Your task to perform on an android device: Open Yahoo.com Image 0: 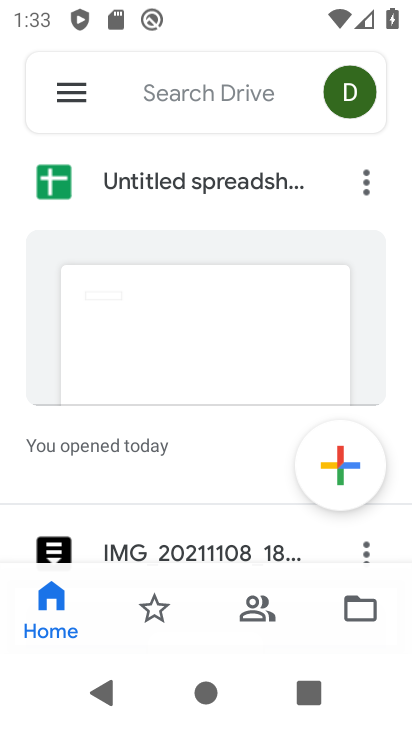
Step 0: press home button
Your task to perform on an android device: Open Yahoo.com Image 1: 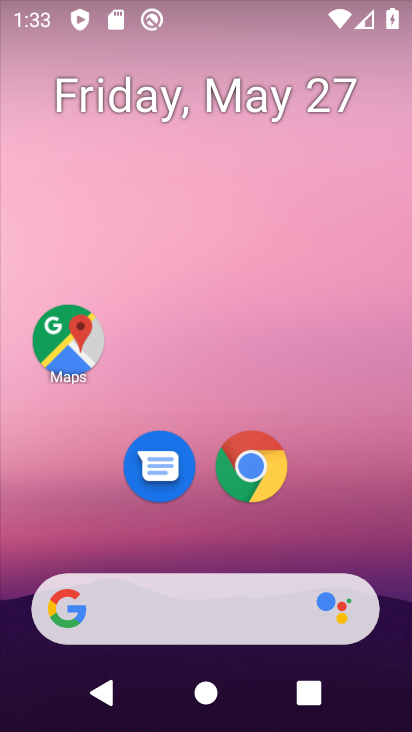
Step 1: click (233, 477)
Your task to perform on an android device: Open Yahoo.com Image 2: 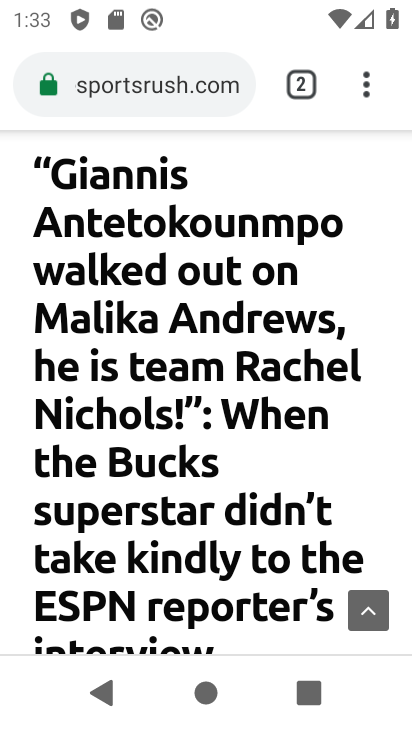
Step 2: click (302, 79)
Your task to perform on an android device: Open Yahoo.com Image 3: 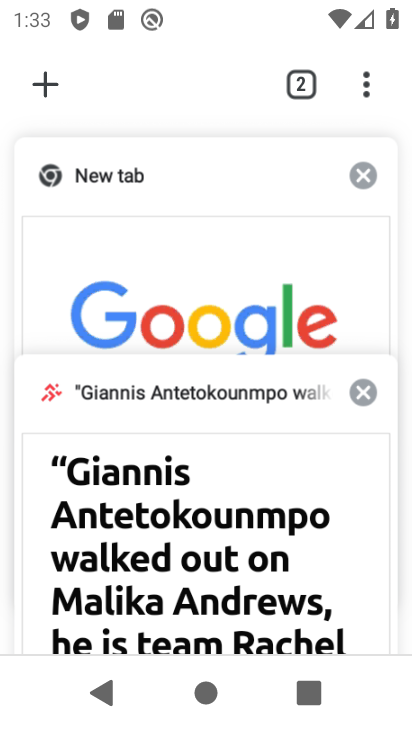
Step 3: click (369, 393)
Your task to perform on an android device: Open Yahoo.com Image 4: 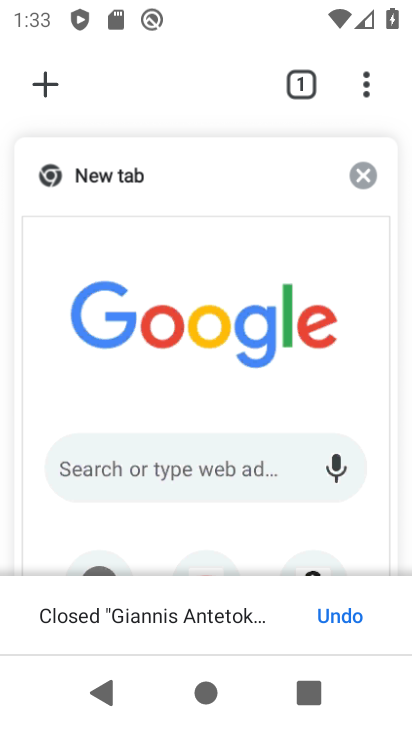
Step 4: click (249, 280)
Your task to perform on an android device: Open Yahoo.com Image 5: 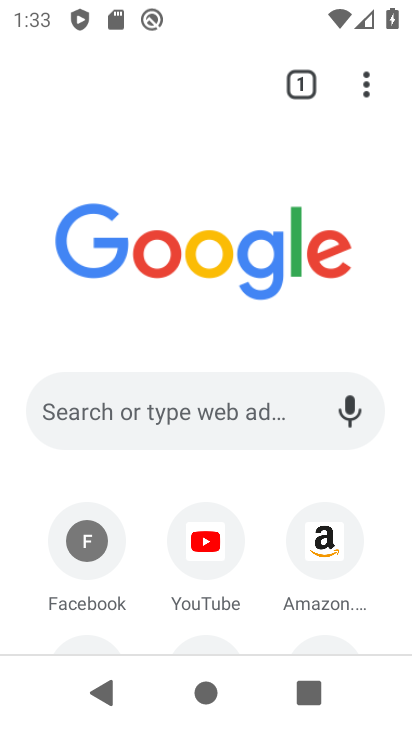
Step 5: drag from (251, 539) to (221, 281)
Your task to perform on an android device: Open Yahoo.com Image 6: 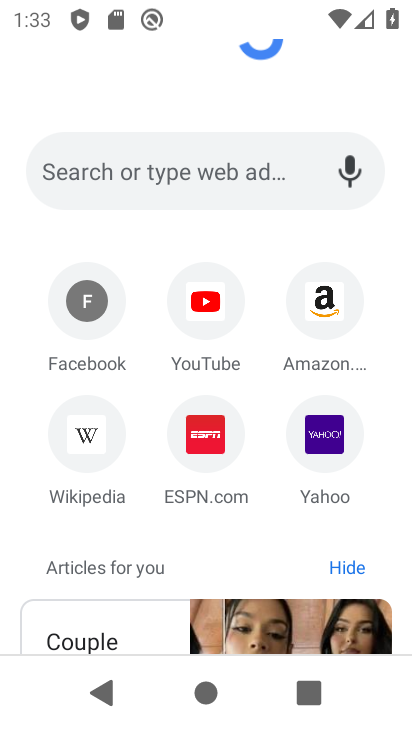
Step 6: click (323, 428)
Your task to perform on an android device: Open Yahoo.com Image 7: 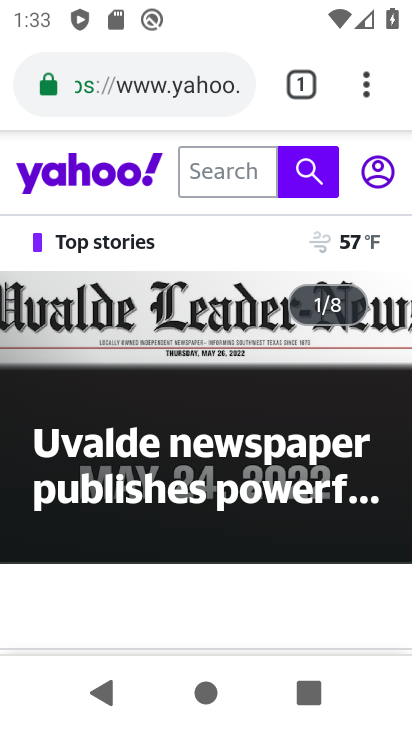
Step 7: task complete